Your task to perform on an android device: turn on the 24-hour format for clock Image 0: 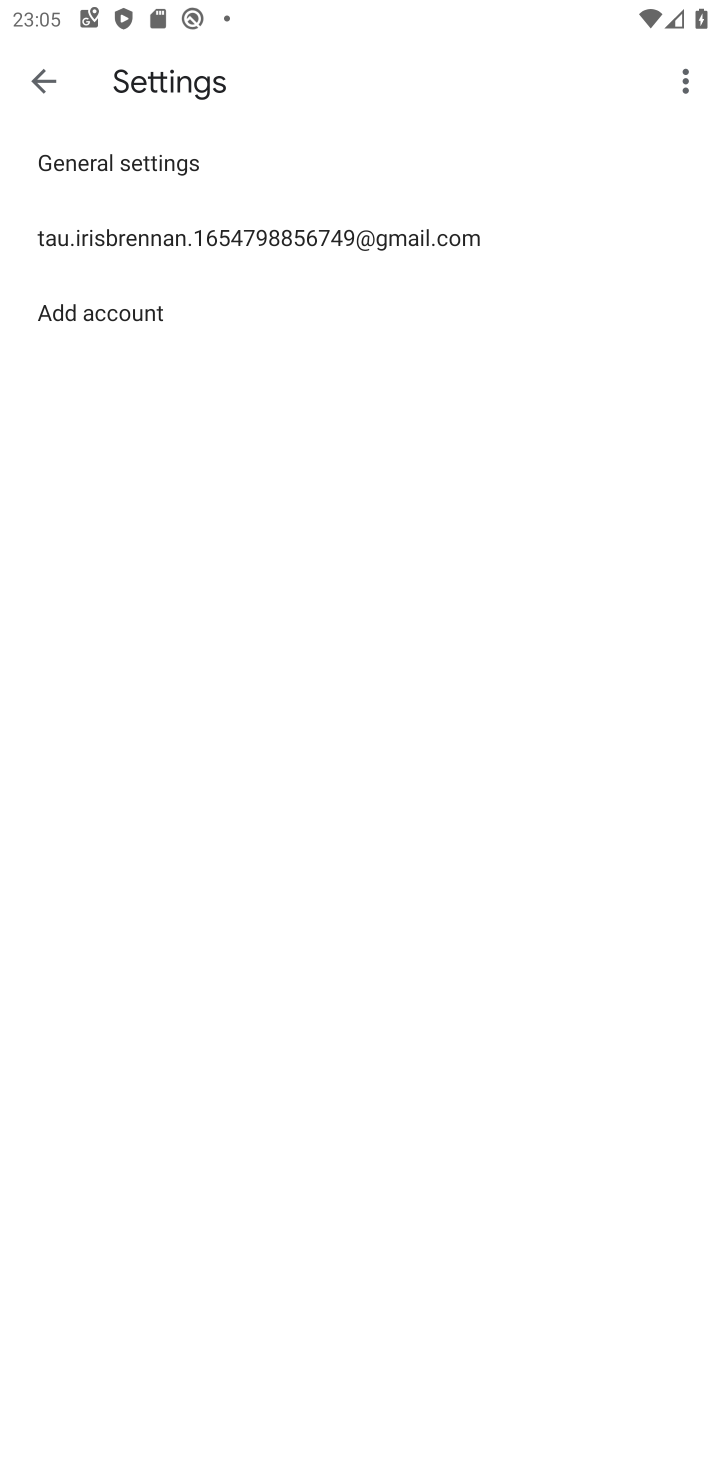
Step 0: press home button
Your task to perform on an android device: turn on the 24-hour format for clock Image 1: 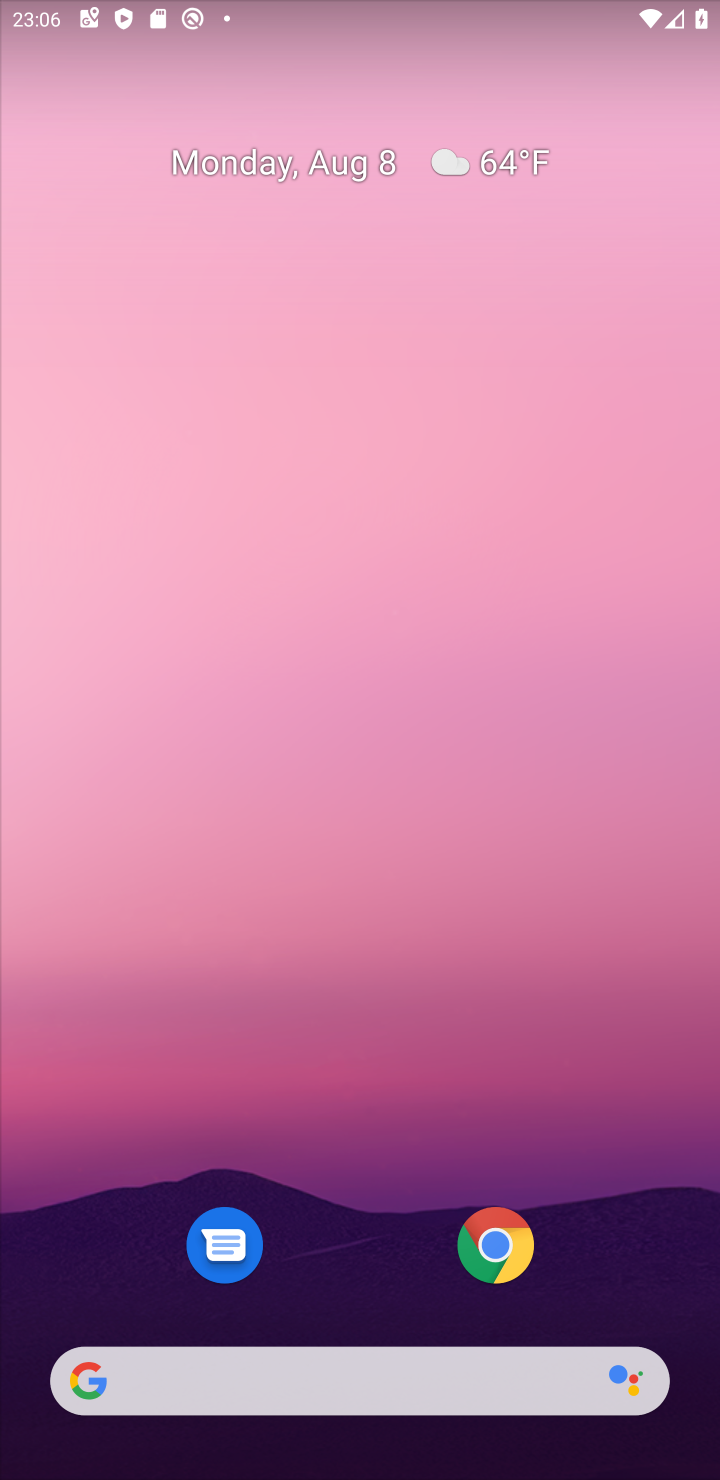
Step 1: drag from (286, 828) to (248, 216)
Your task to perform on an android device: turn on the 24-hour format for clock Image 2: 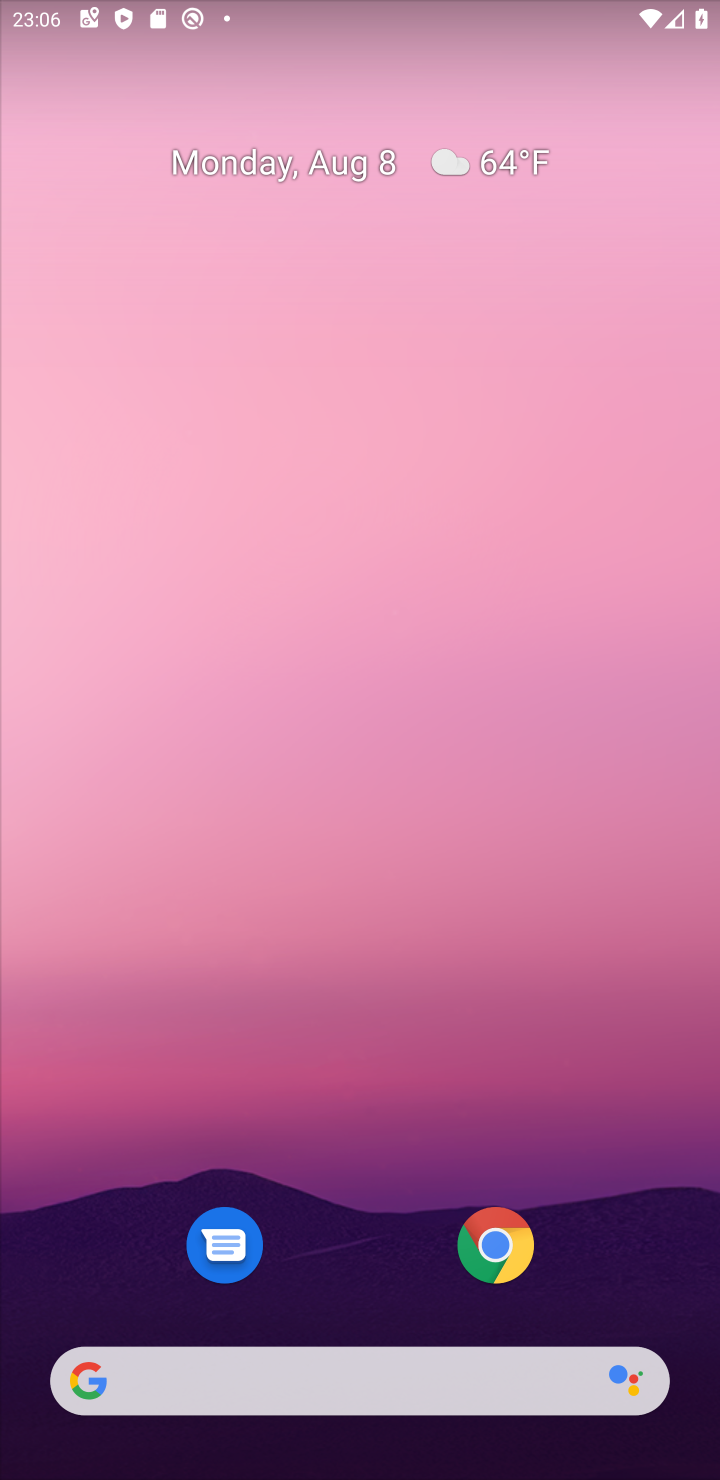
Step 2: drag from (376, 1171) to (310, 137)
Your task to perform on an android device: turn on the 24-hour format for clock Image 3: 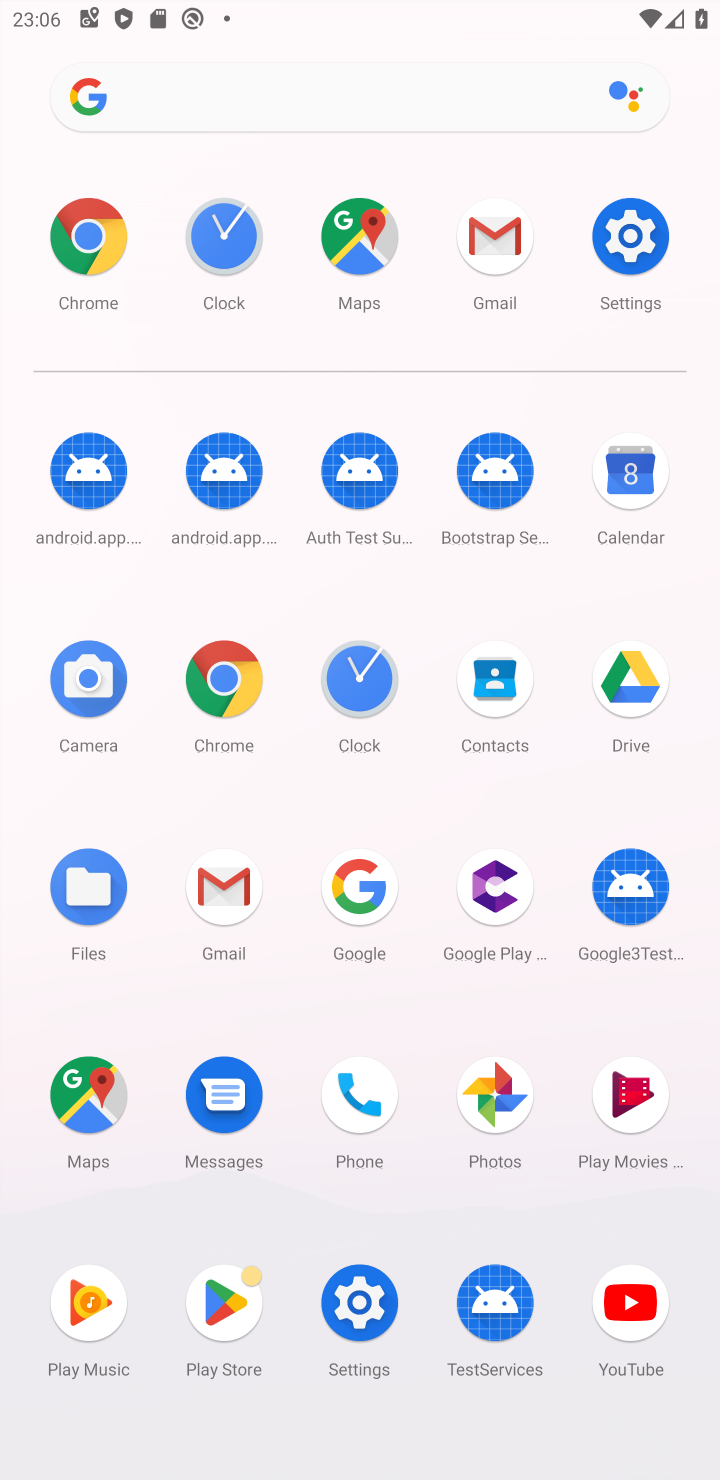
Step 3: click (365, 687)
Your task to perform on an android device: turn on the 24-hour format for clock Image 4: 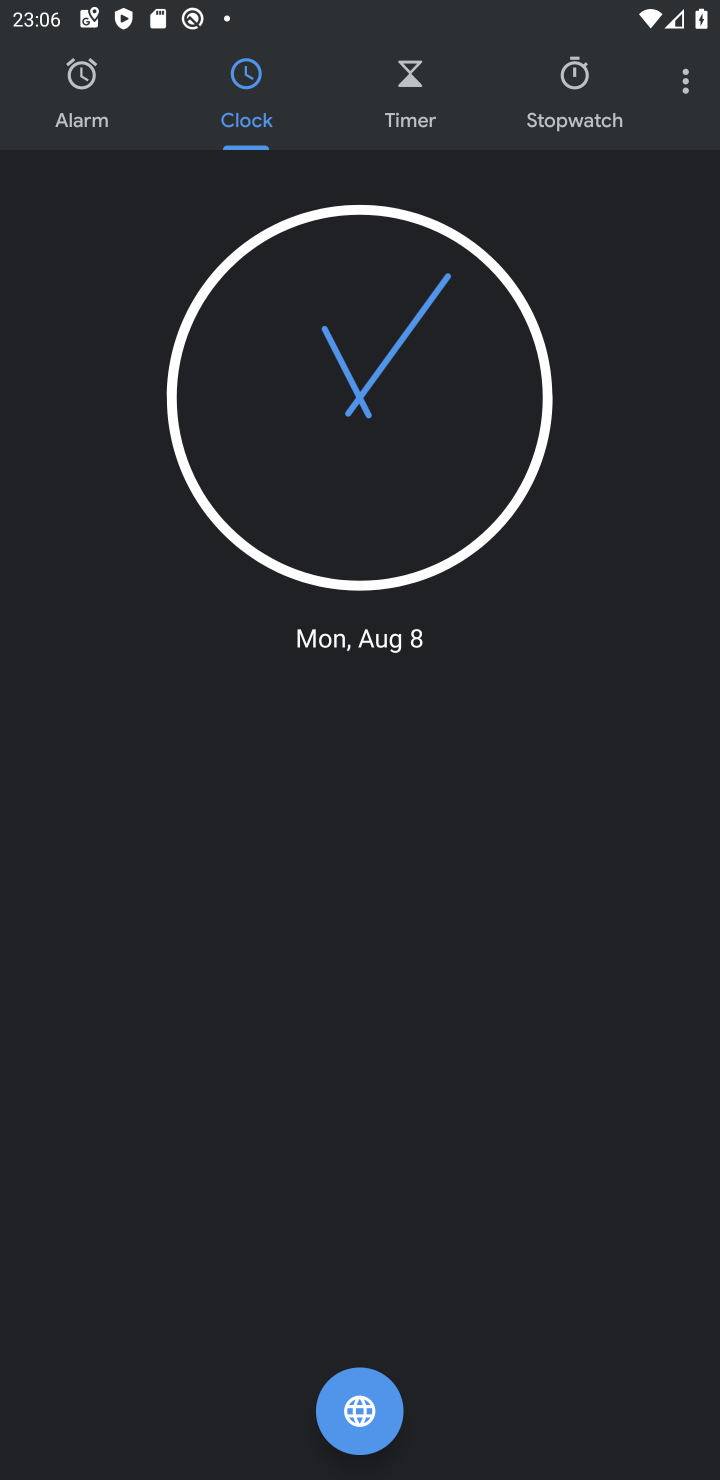
Step 4: click (690, 81)
Your task to perform on an android device: turn on the 24-hour format for clock Image 5: 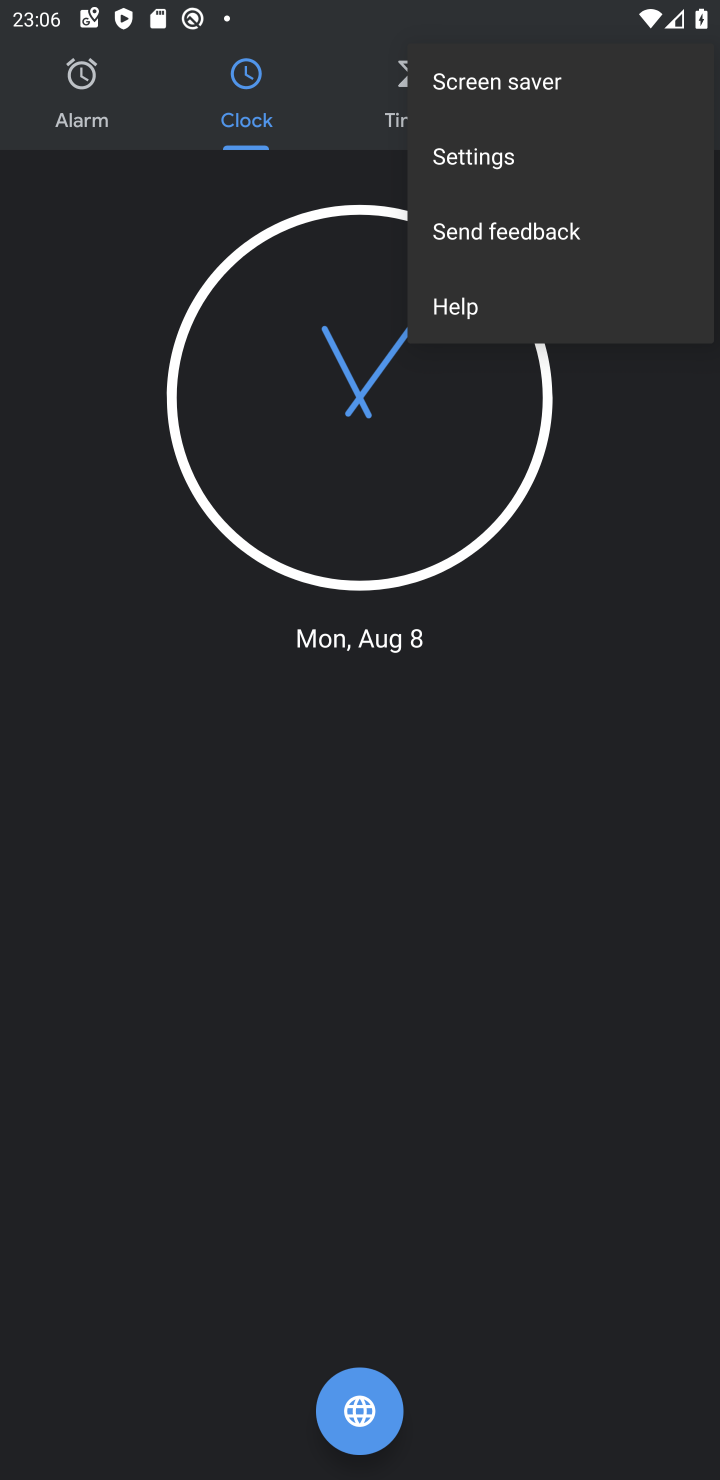
Step 5: click (482, 143)
Your task to perform on an android device: turn on the 24-hour format for clock Image 6: 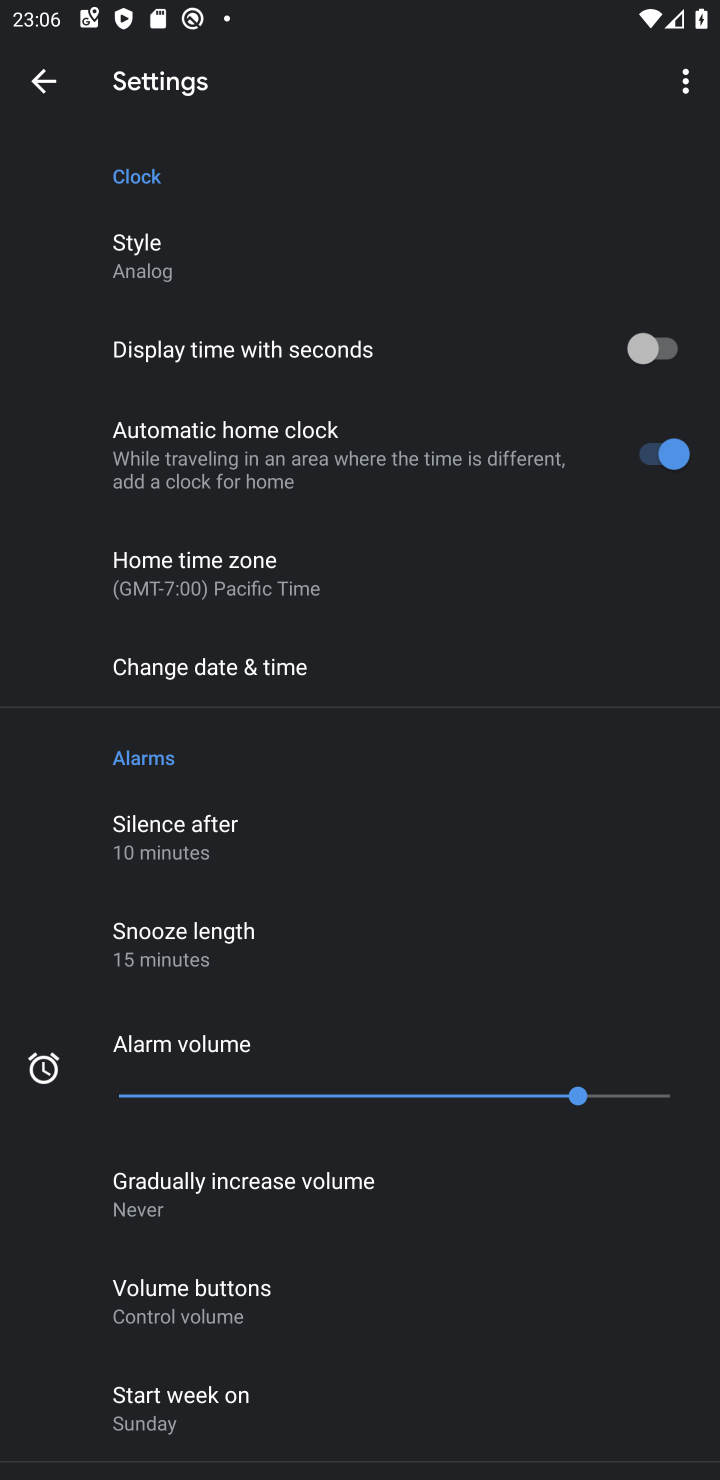
Step 6: click (210, 674)
Your task to perform on an android device: turn on the 24-hour format for clock Image 7: 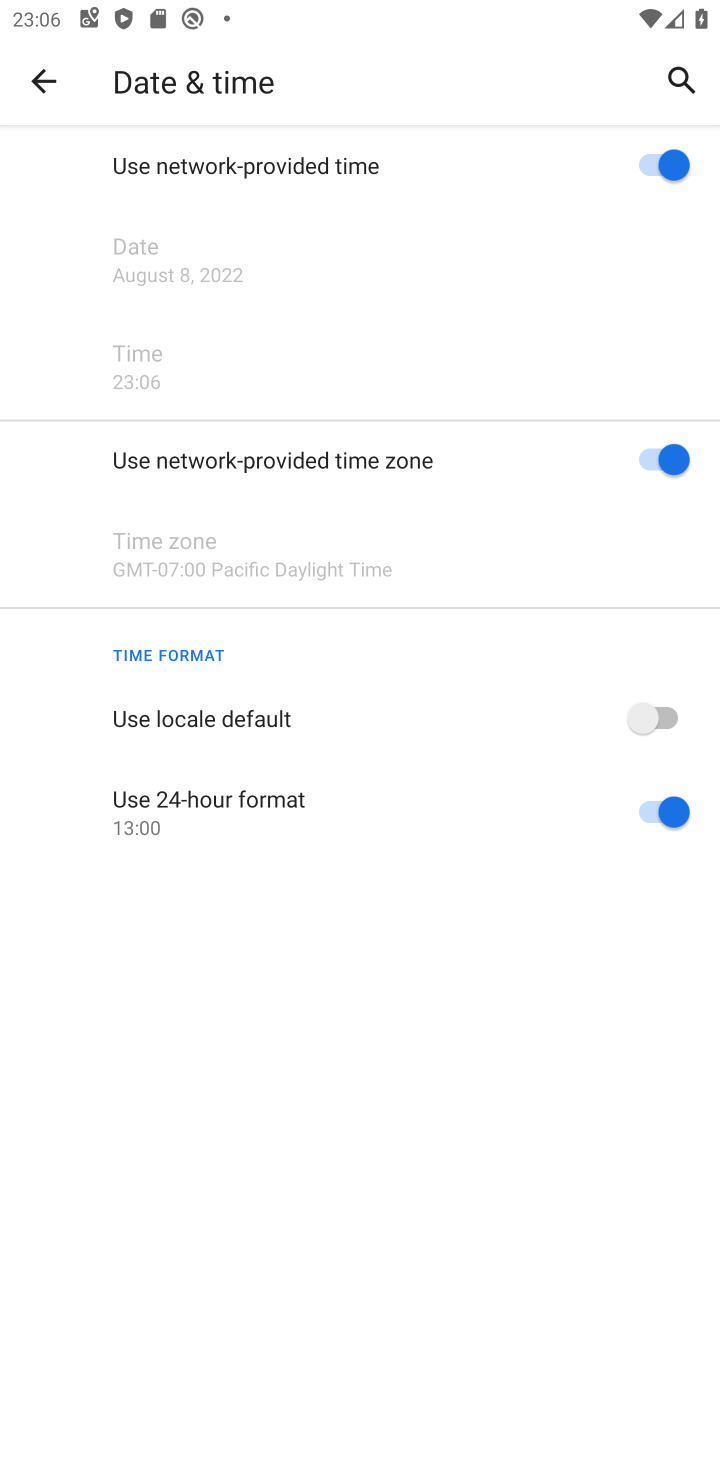
Step 7: task complete